Your task to perform on an android device: Open Google Maps Image 0: 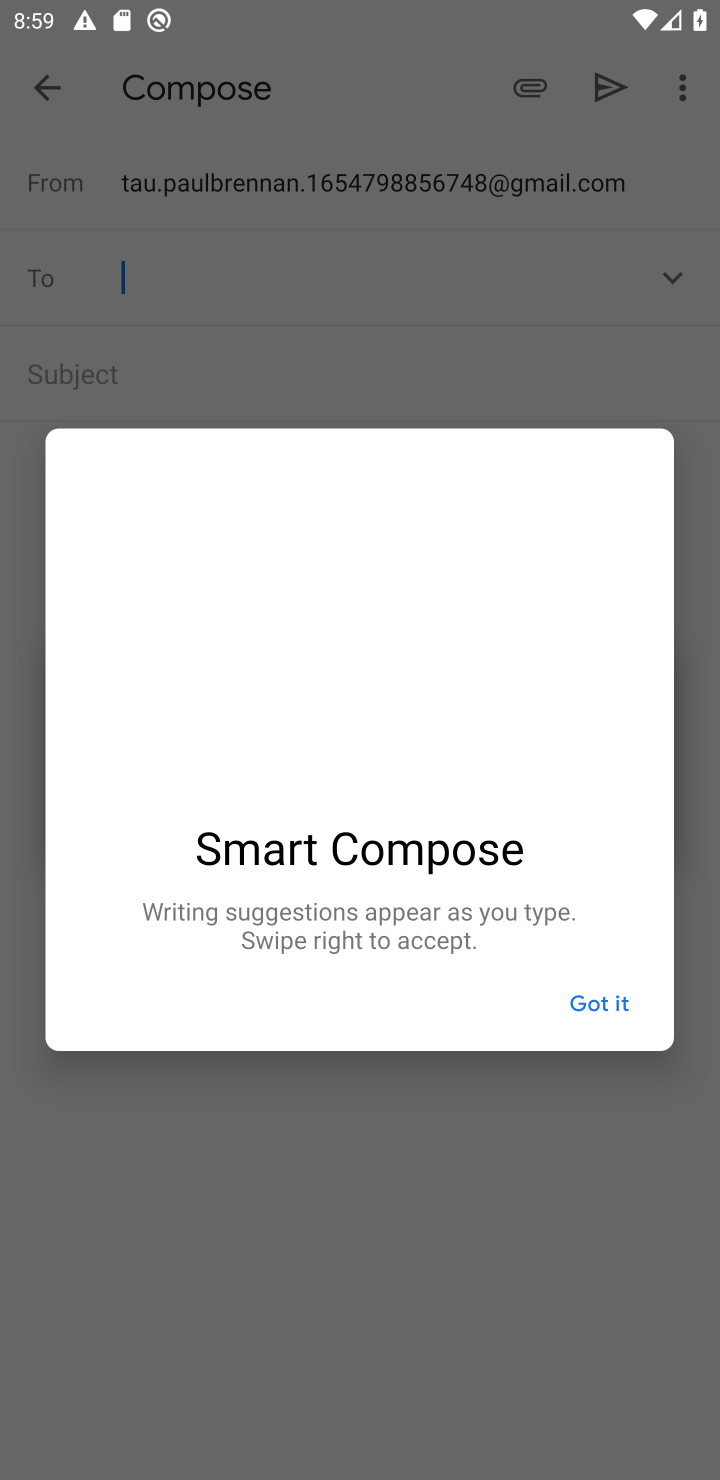
Step 0: click (35, 104)
Your task to perform on an android device: Open Google Maps Image 1: 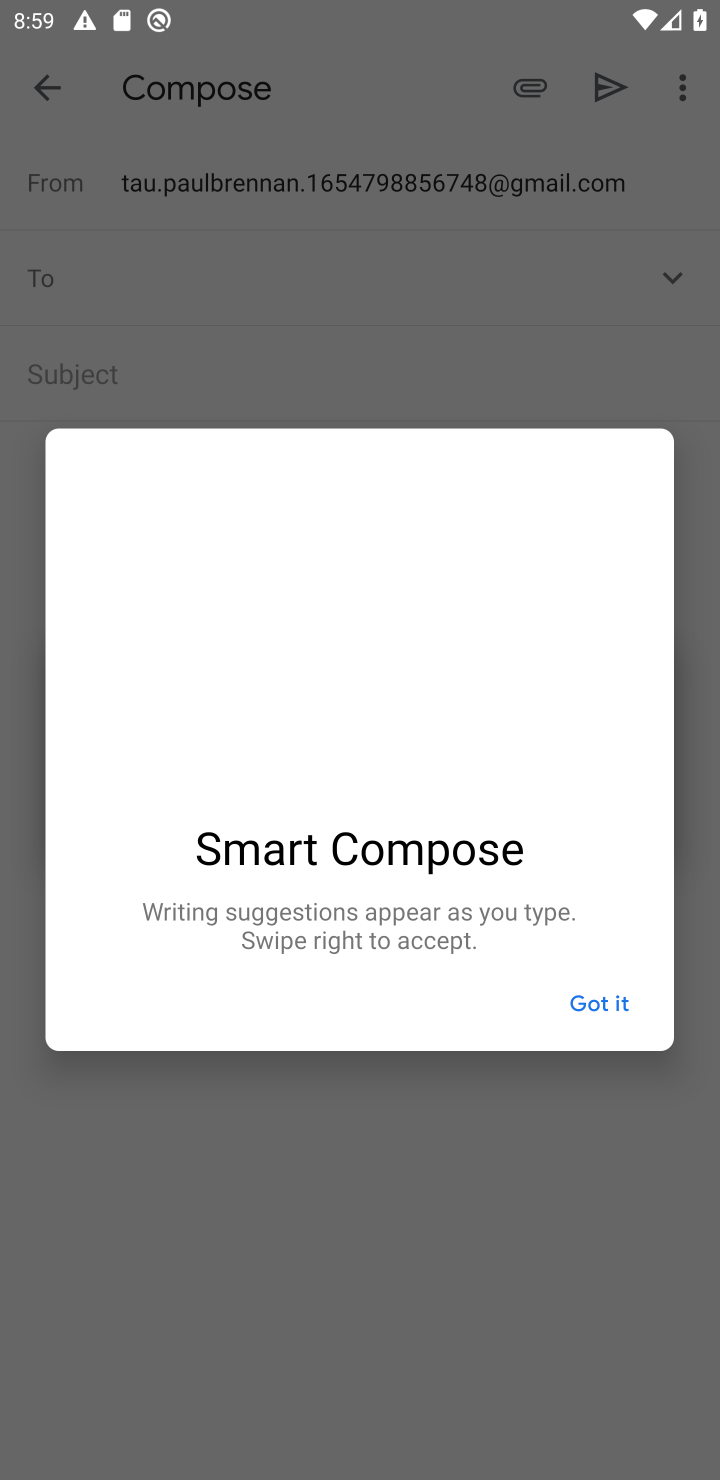
Step 1: click (40, 96)
Your task to perform on an android device: Open Google Maps Image 2: 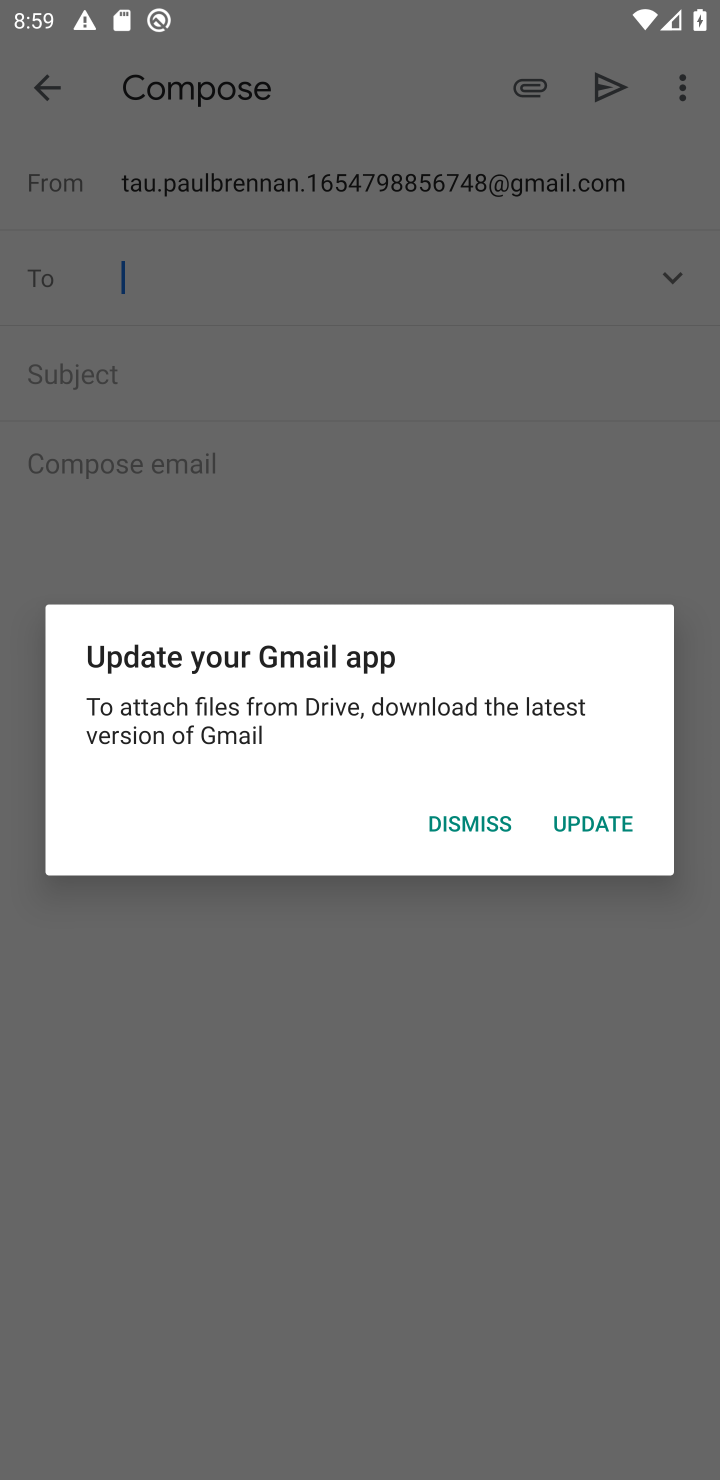
Step 2: click (486, 811)
Your task to perform on an android device: Open Google Maps Image 3: 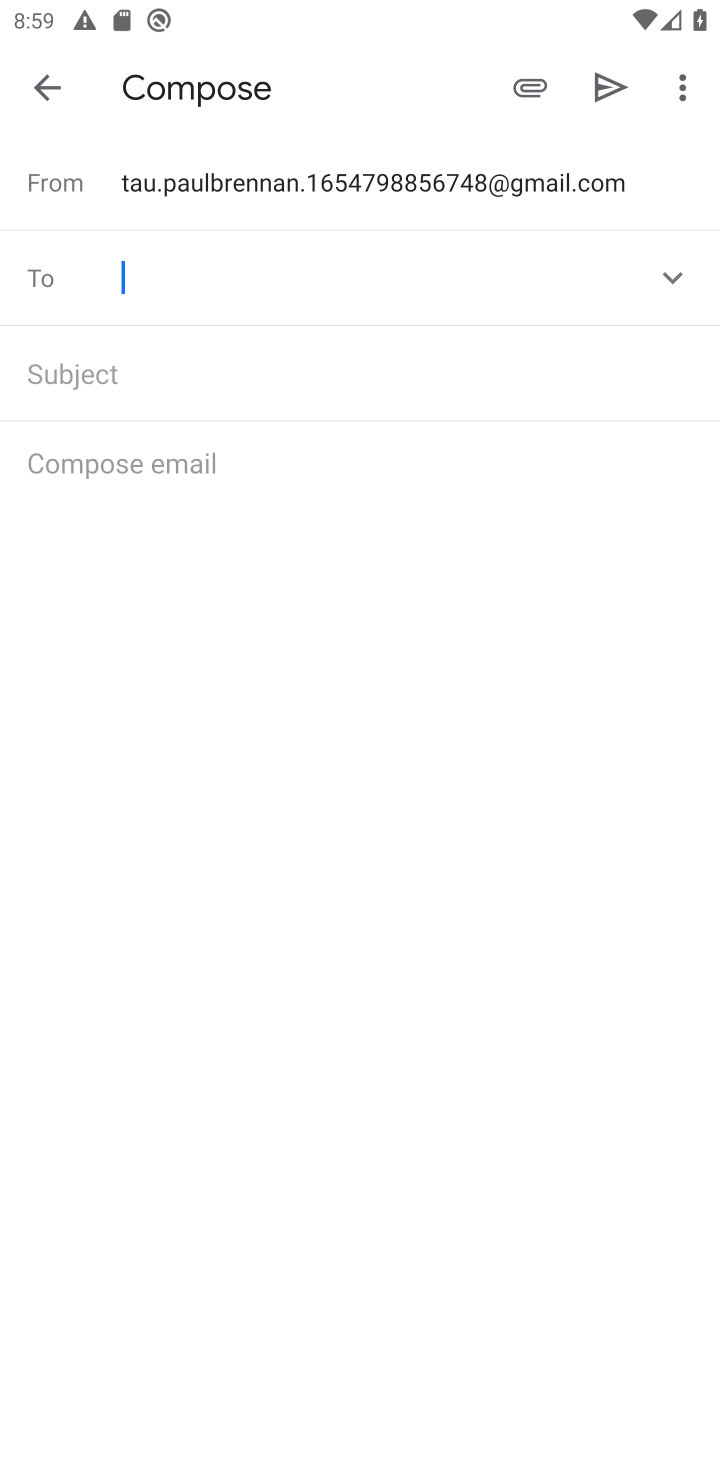
Step 3: click (46, 78)
Your task to perform on an android device: Open Google Maps Image 4: 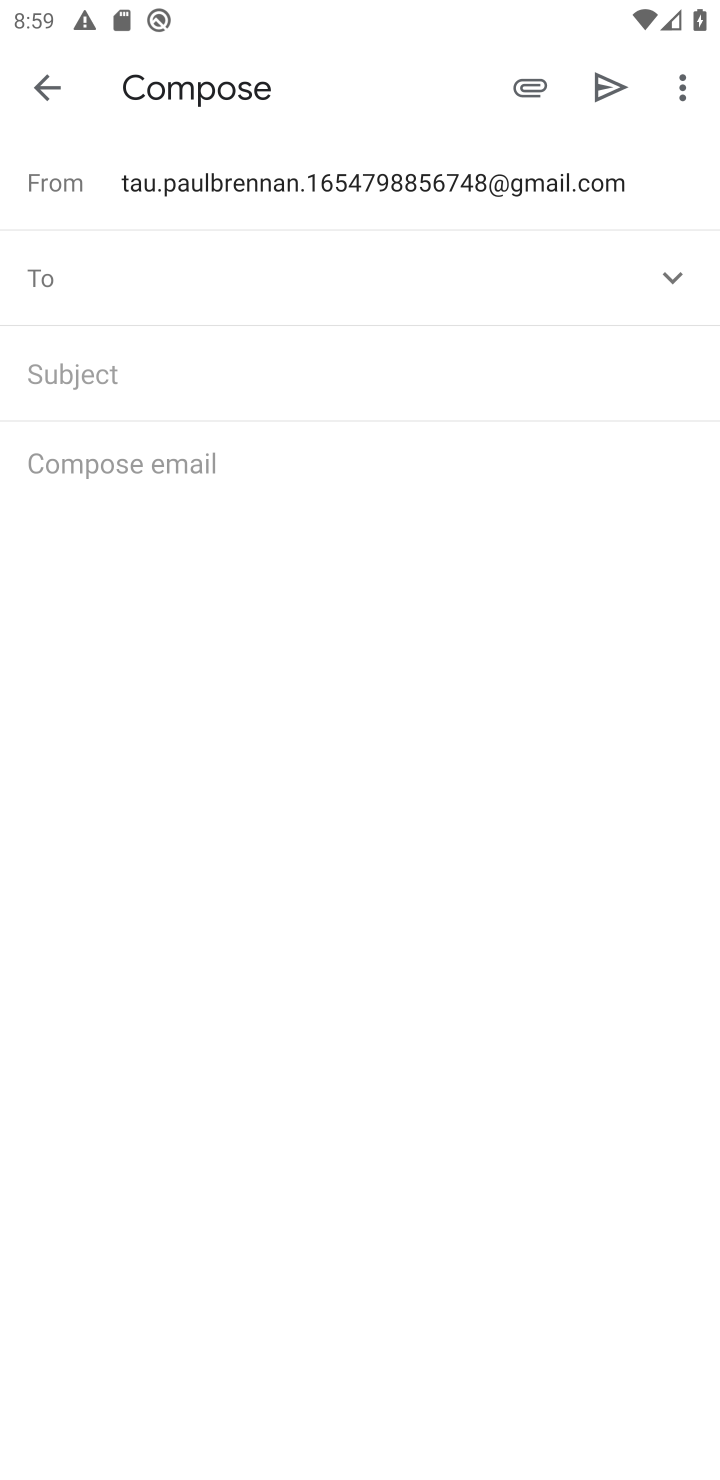
Step 4: click (47, 80)
Your task to perform on an android device: Open Google Maps Image 5: 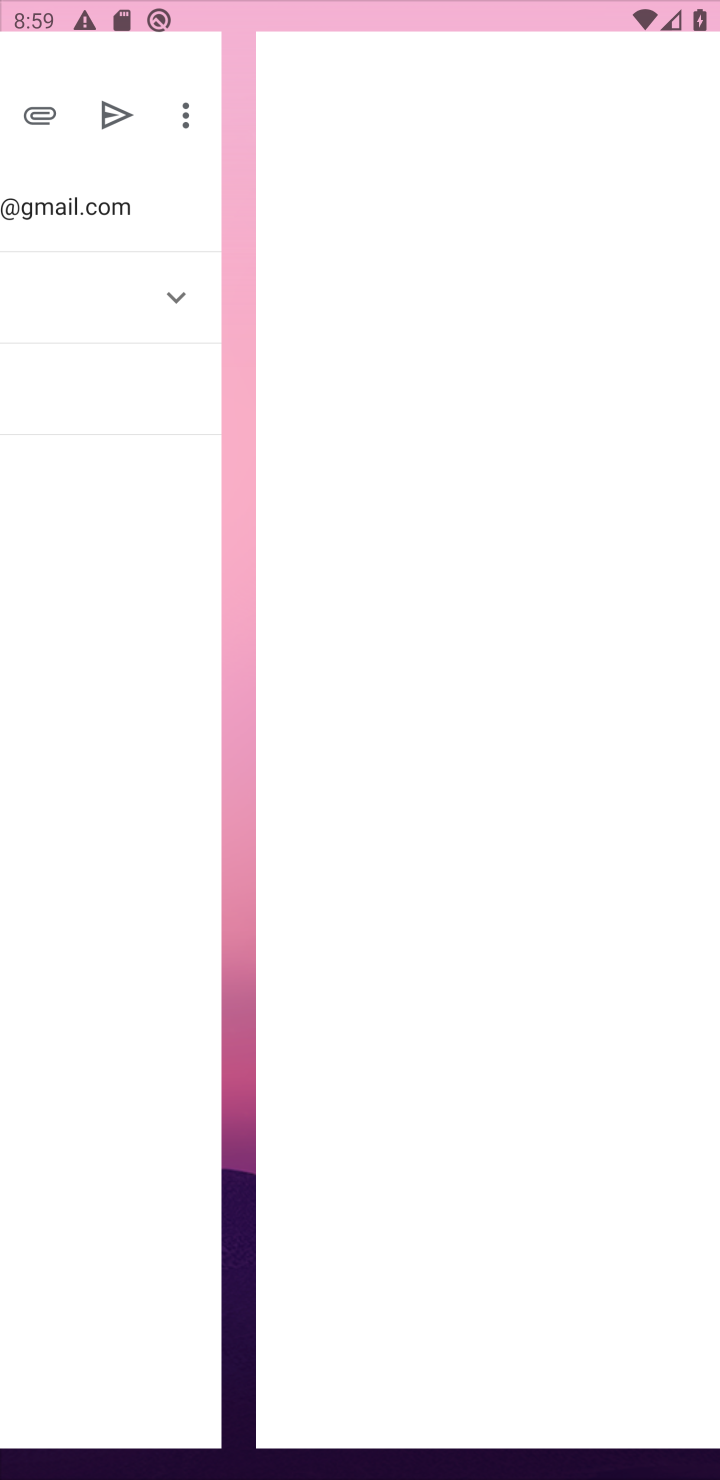
Step 5: click (47, 80)
Your task to perform on an android device: Open Google Maps Image 6: 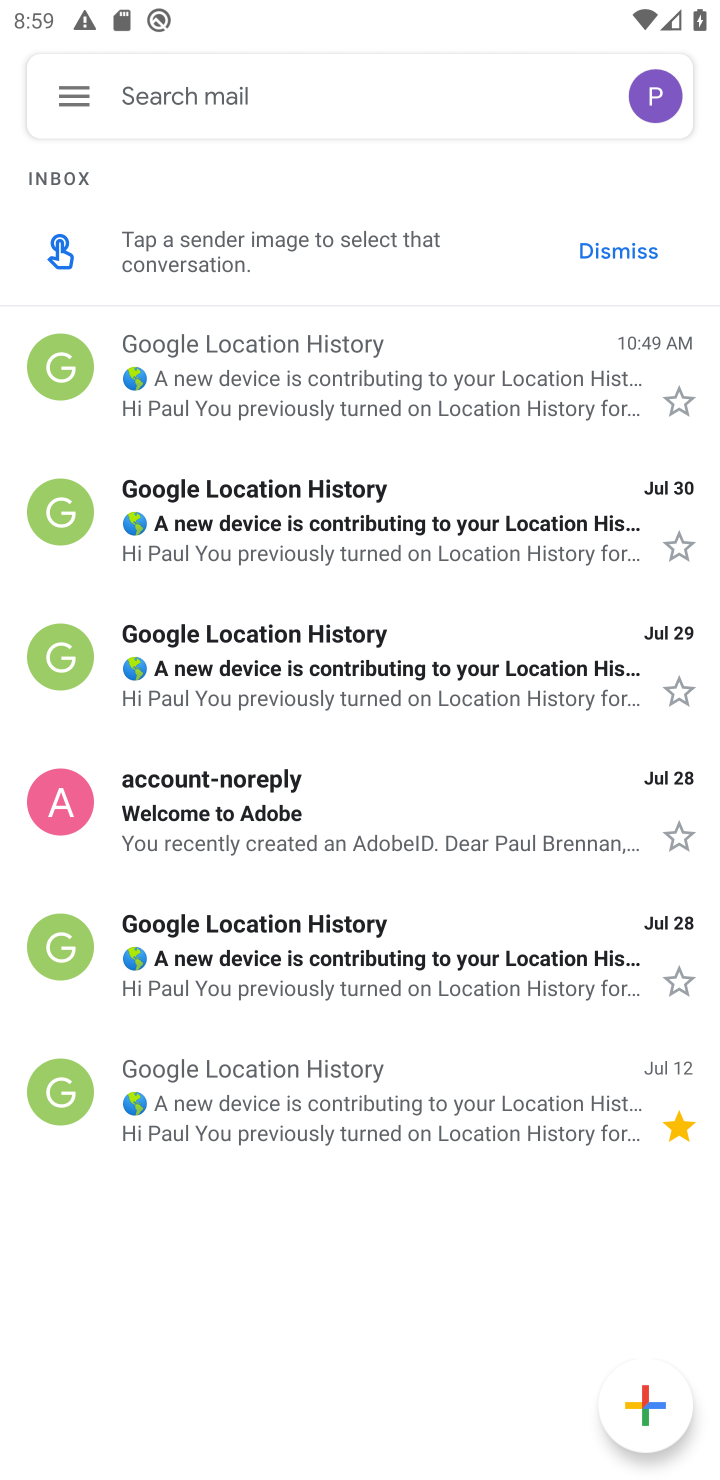
Step 6: press back button
Your task to perform on an android device: Open Google Maps Image 7: 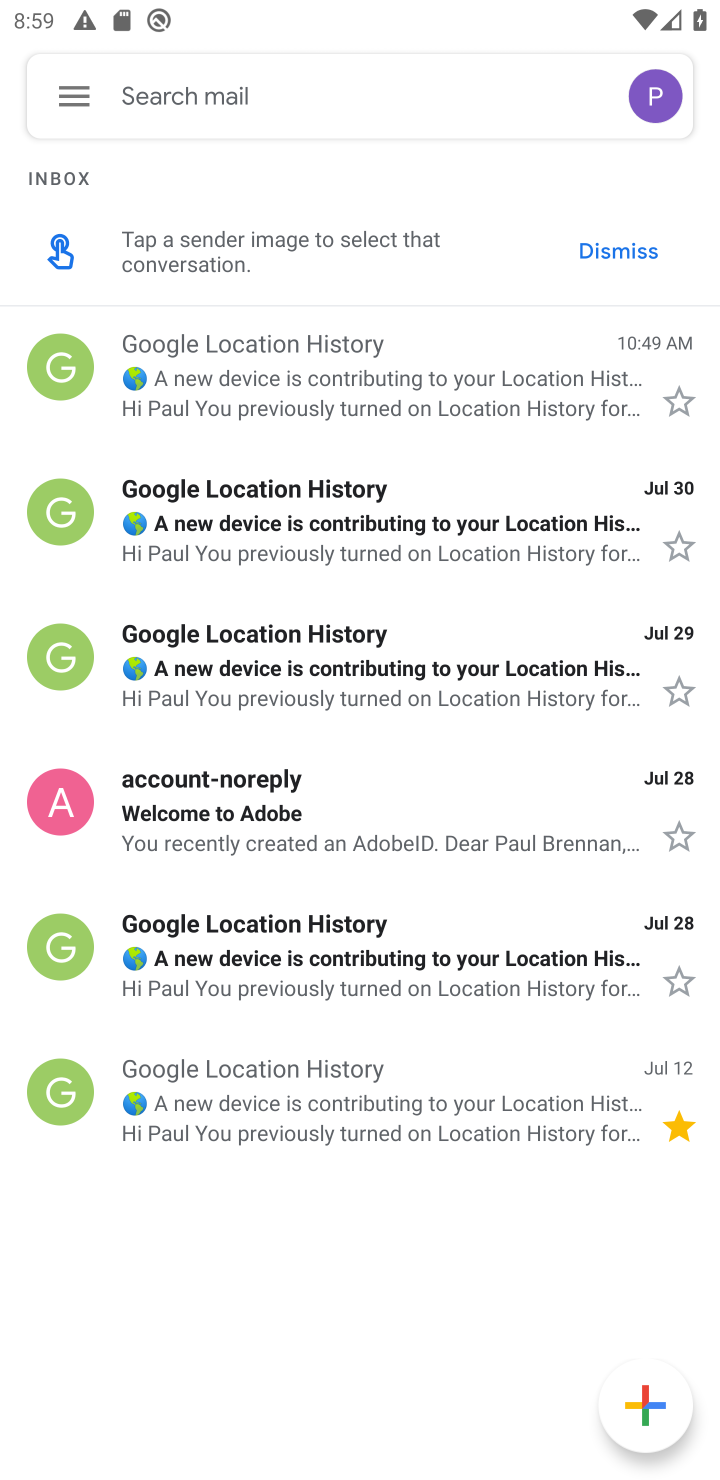
Step 7: press back button
Your task to perform on an android device: Open Google Maps Image 8: 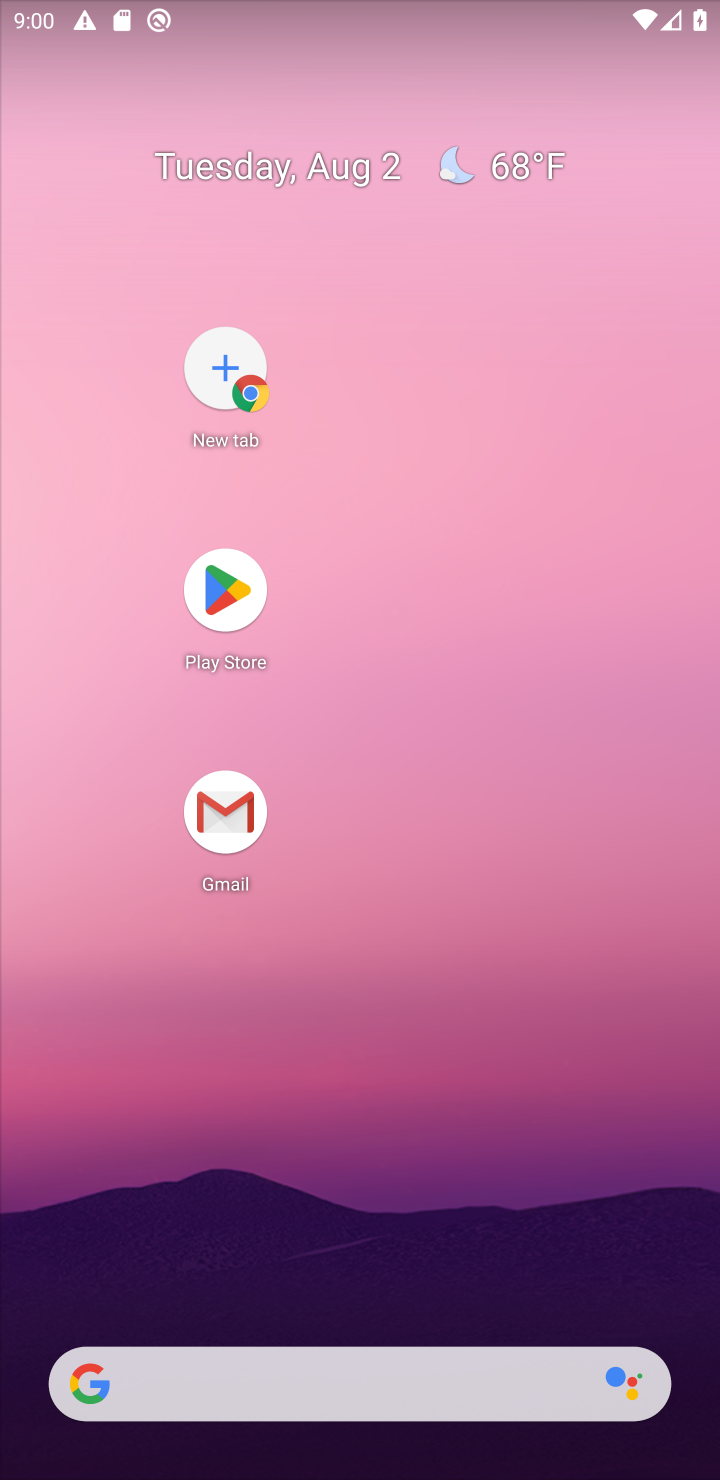
Step 8: drag from (477, 1107) to (412, 790)
Your task to perform on an android device: Open Google Maps Image 9: 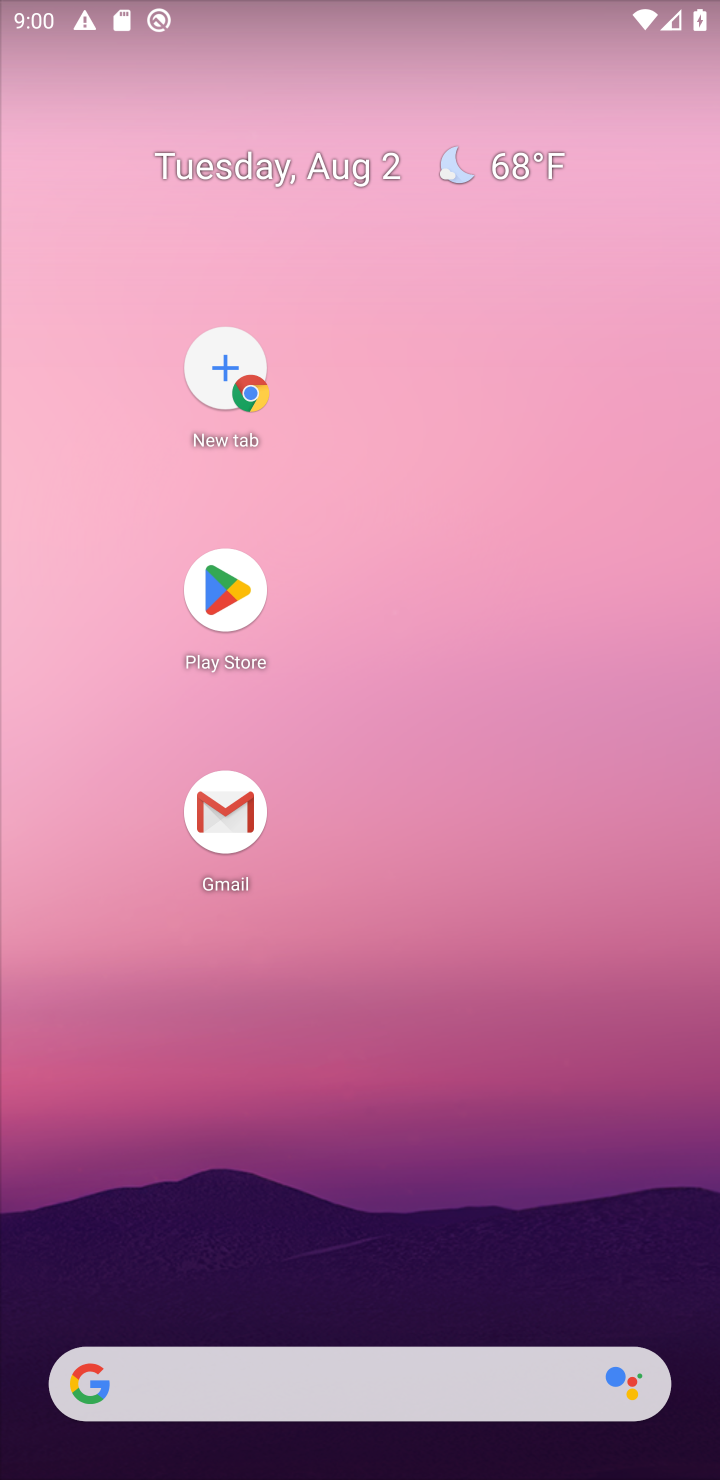
Step 9: drag from (515, 1284) to (388, 453)
Your task to perform on an android device: Open Google Maps Image 10: 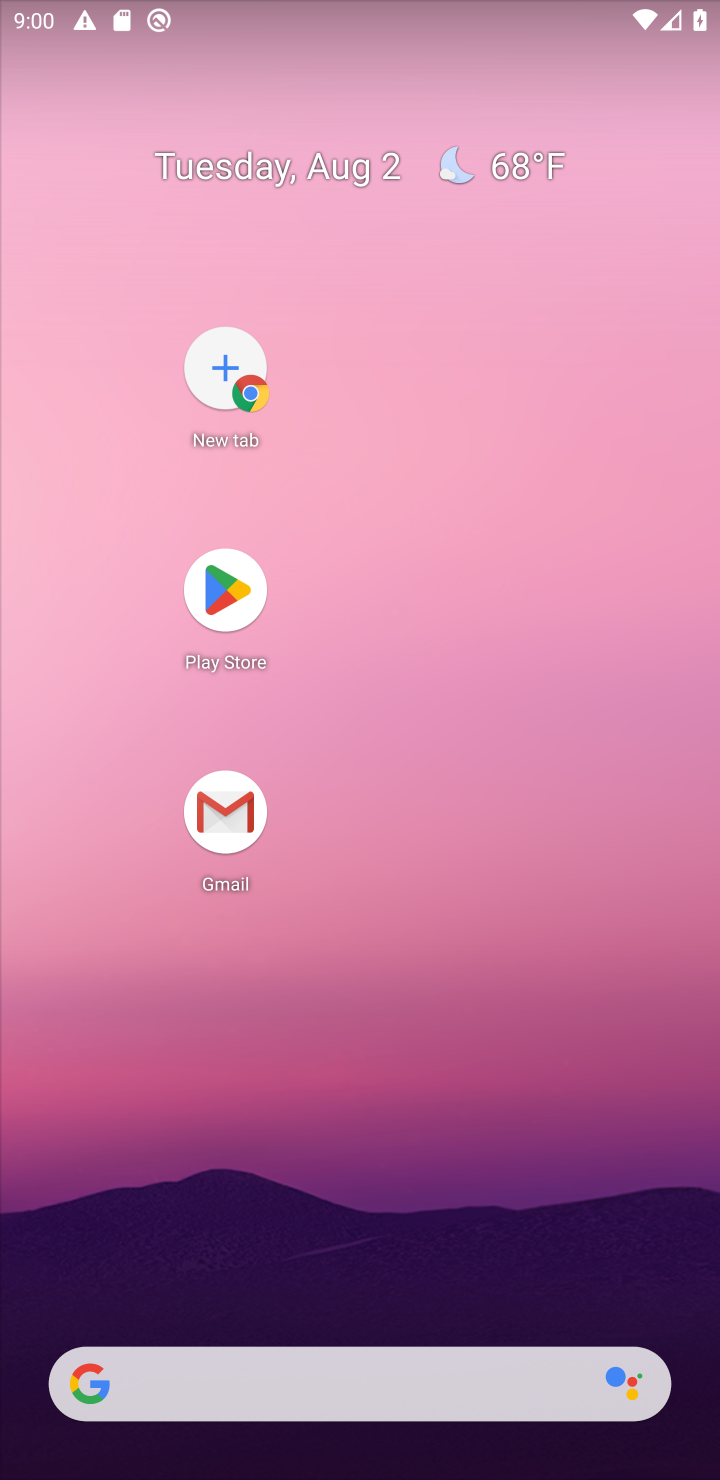
Step 10: drag from (455, 893) to (322, 300)
Your task to perform on an android device: Open Google Maps Image 11: 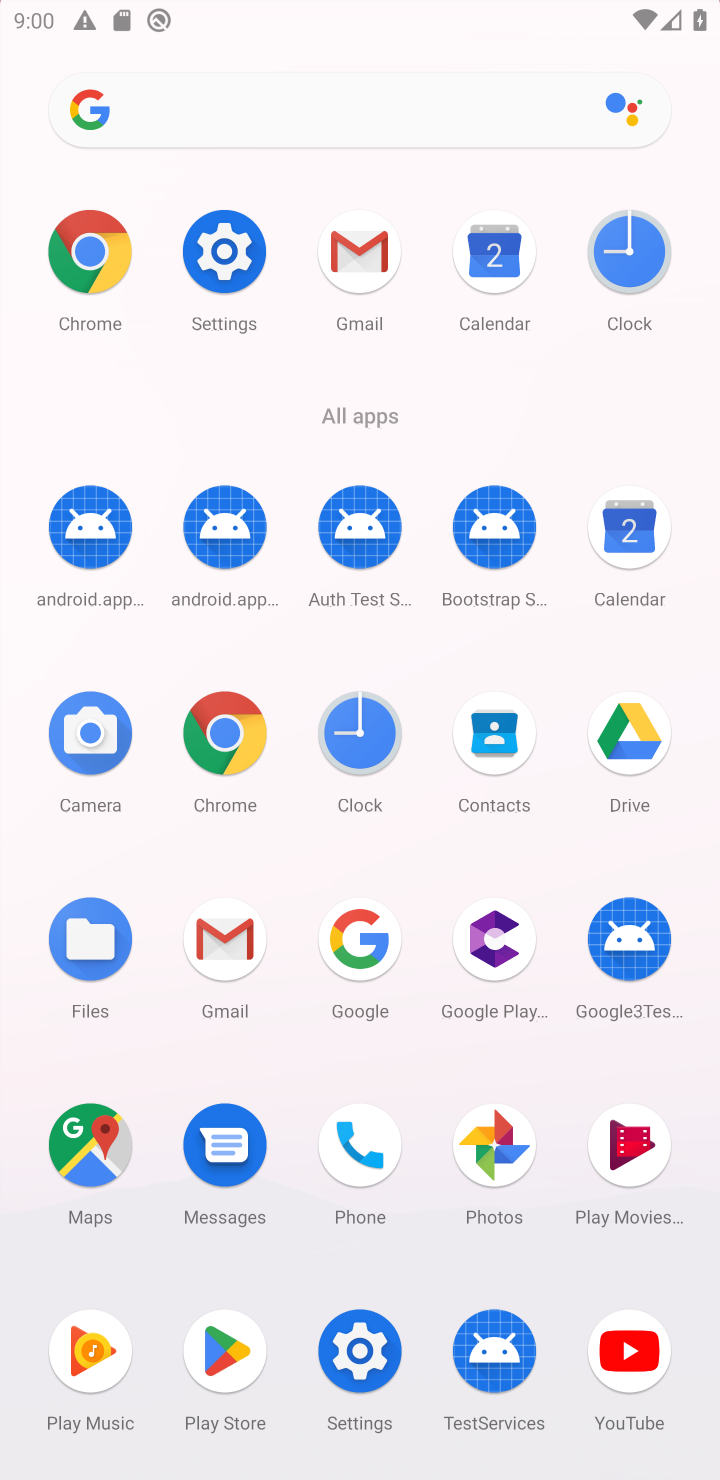
Step 11: click (404, 411)
Your task to perform on an android device: Open Google Maps Image 12: 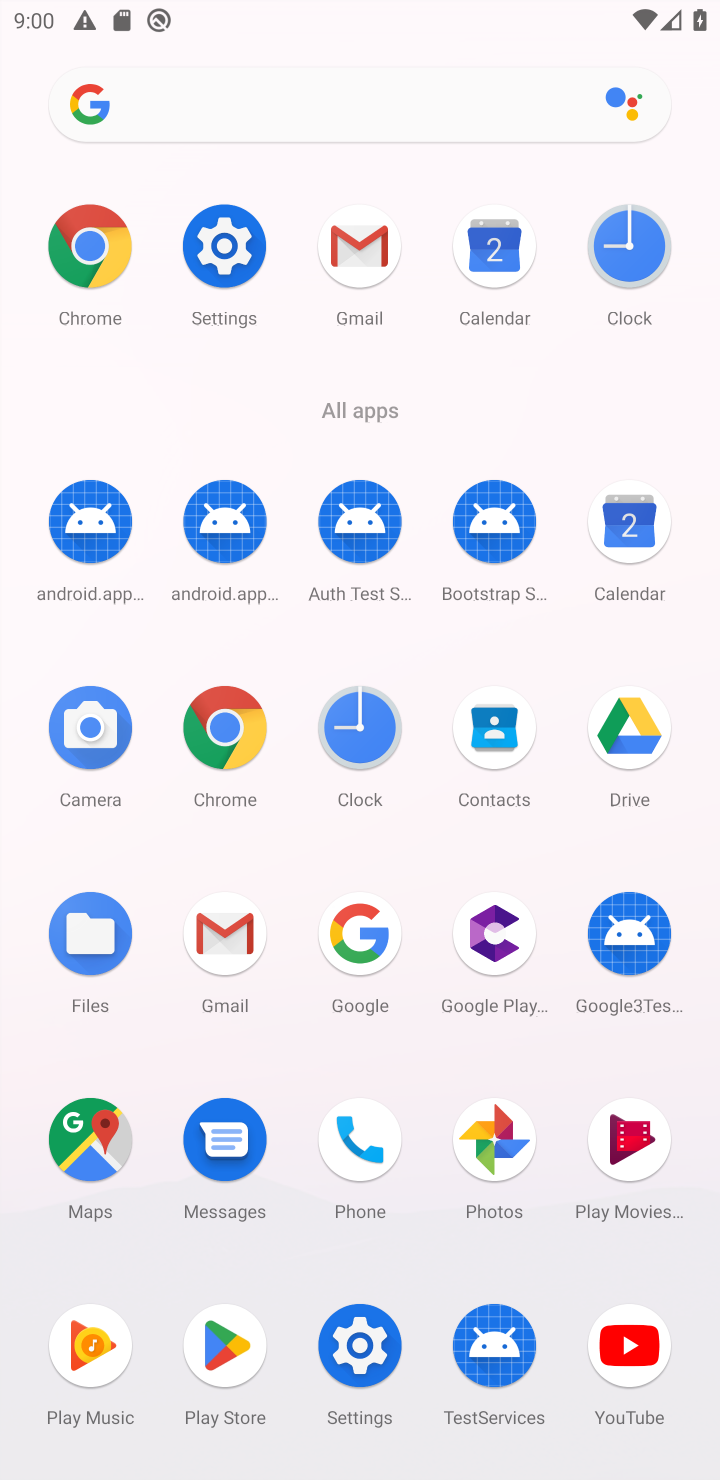
Step 12: click (84, 1136)
Your task to perform on an android device: Open Google Maps Image 13: 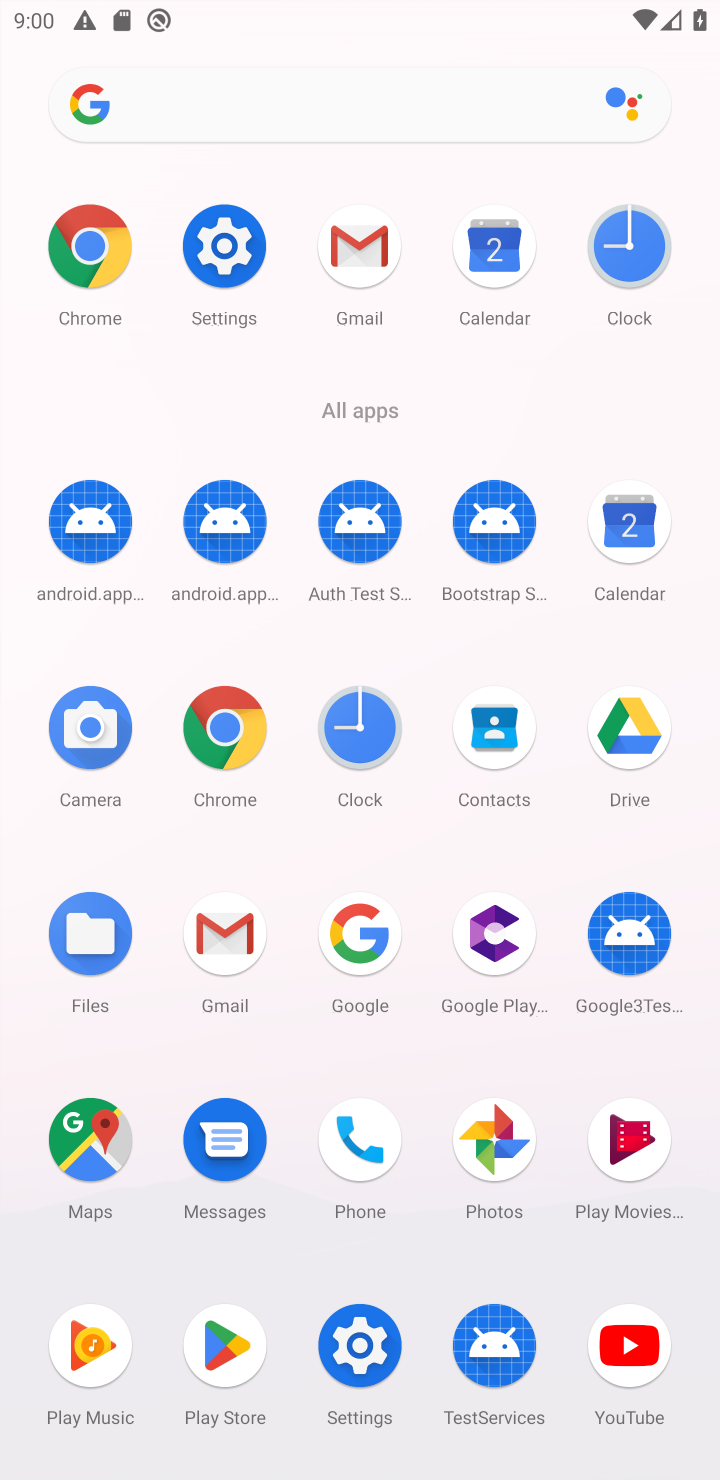
Step 13: click (84, 1136)
Your task to perform on an android device: Open Google Maps Image 14: 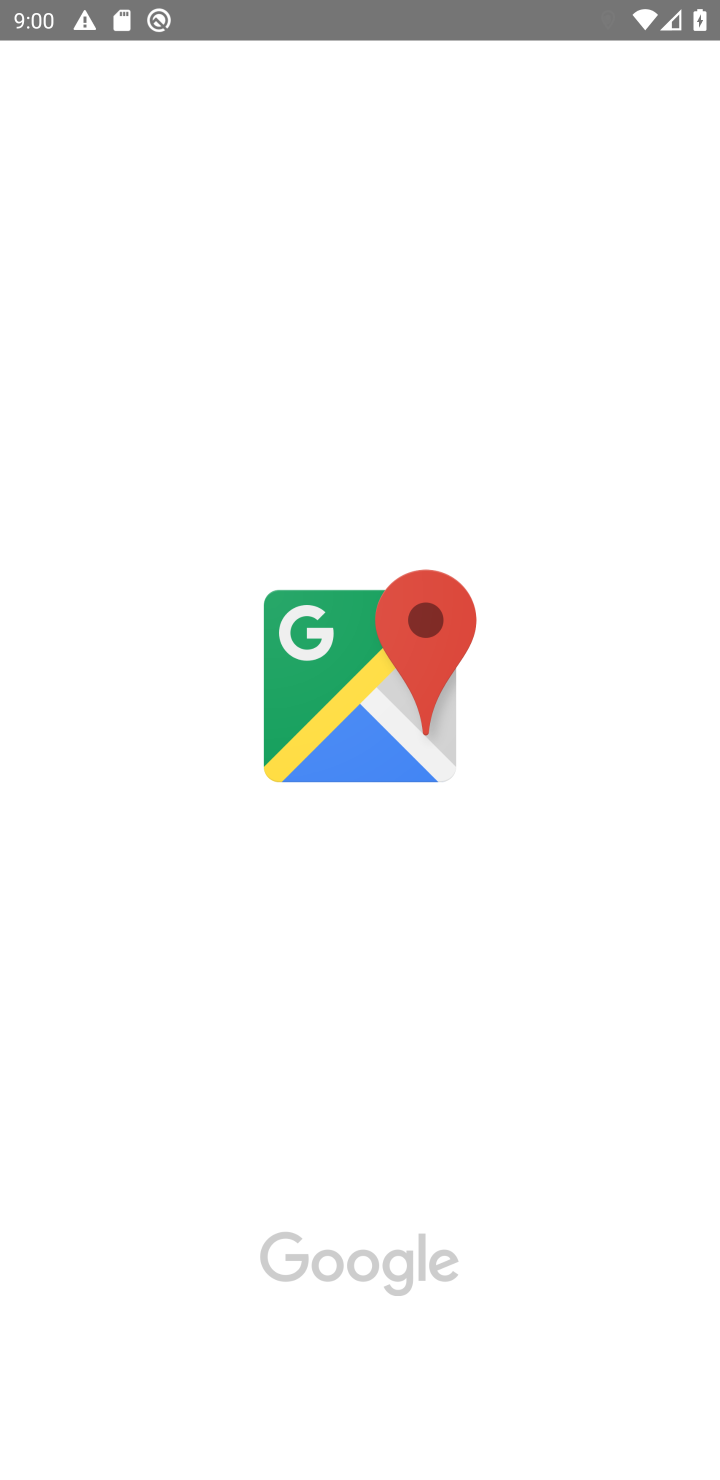
Step 14: click (106, 1147)
Your task to perform on an android device: Open Google Maps Image 15: 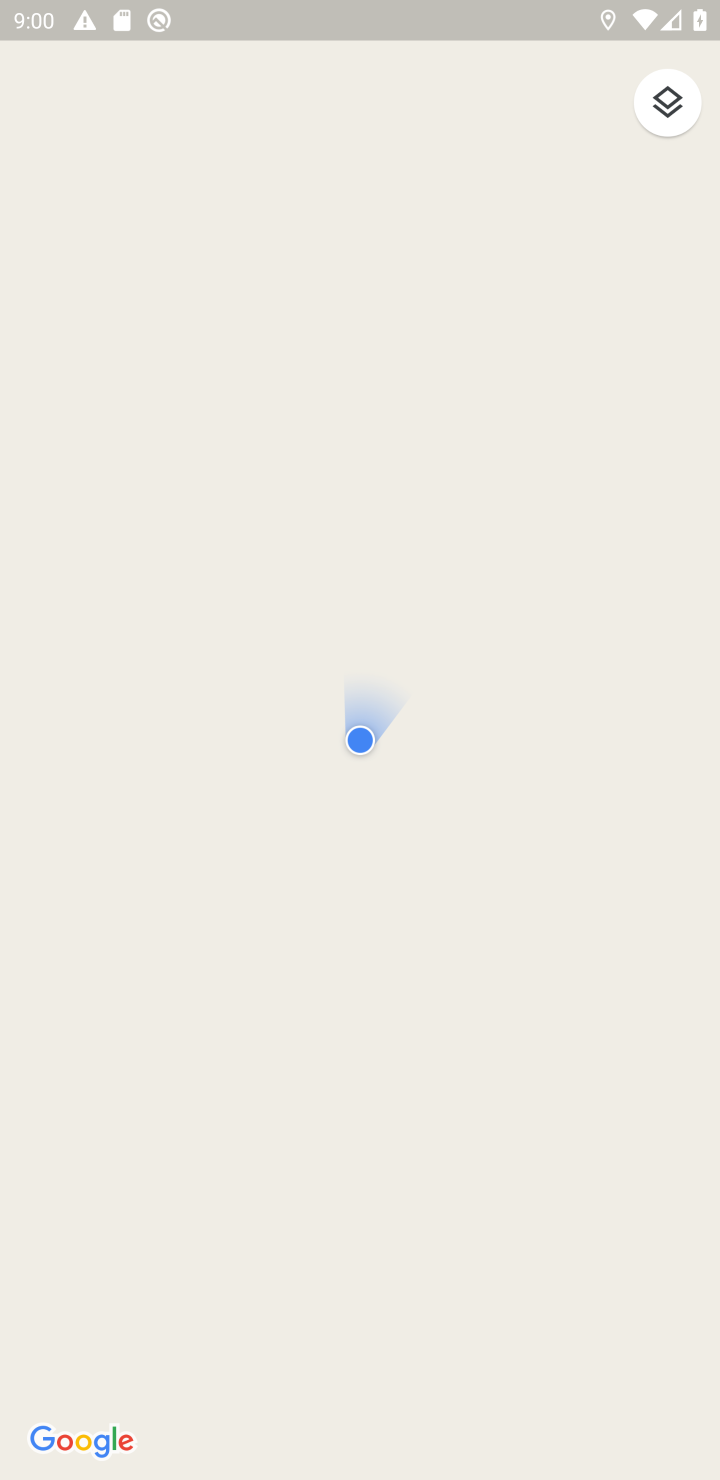
Step 15: task complete